Your task to perform on an android device: What's on my calendar tomorrow? Image 0: 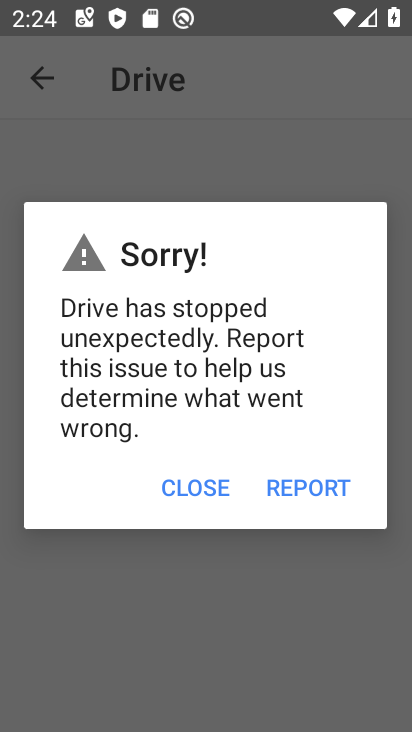
Step 0: drag from (176, 615) to (381, 555)
Your task to perform on an android device: What's on my calendar tomorrow? Image 1: 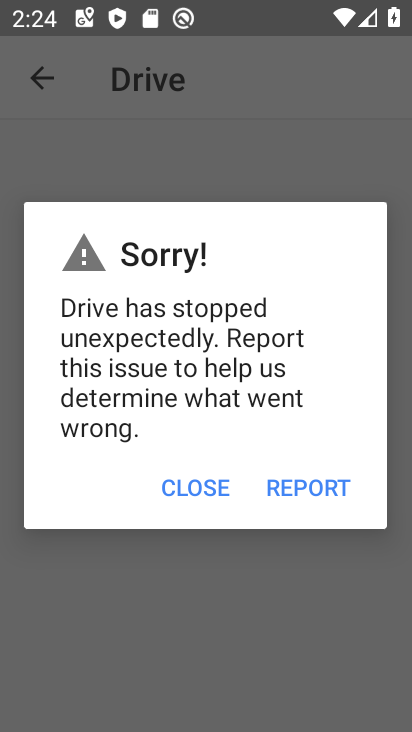
Step 1: click (192, 493)
Your task to perform on an android device: What's on my calendar tomorrow? Image 2: 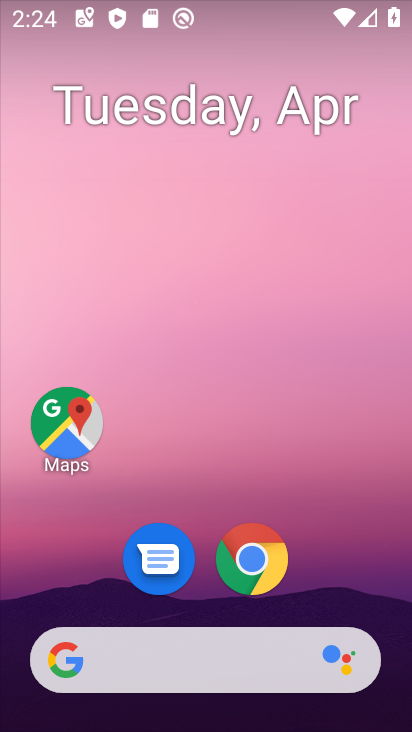
Step 2: drag from (175, 628) to (374, 109)
Your task to perform on an android device: What's on my calendar tomorrow? Image 3: 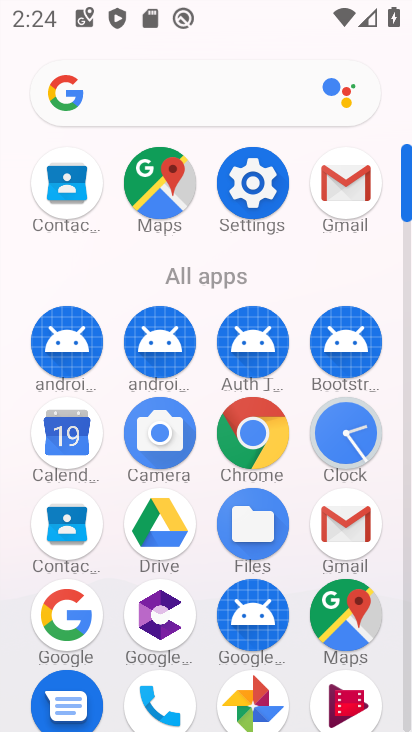
Step 3: click (64, 443)
Your task to perform on an android device: What's on my calendar tomorrow? Image 4: 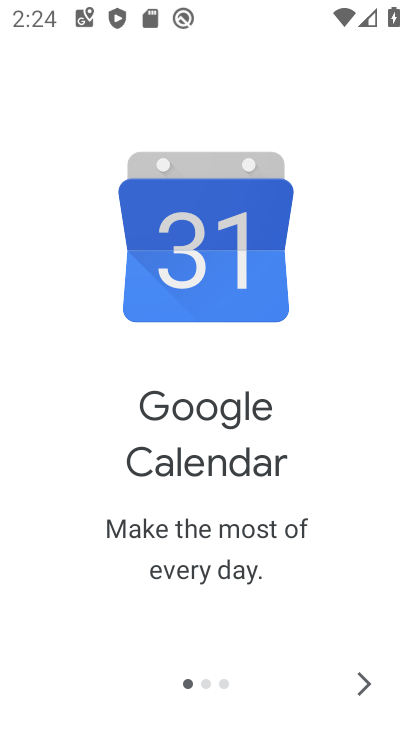
Step 4: click (350, 681)
Your task to perform on an android device: What's on my calendar tomorrow? Image 5: 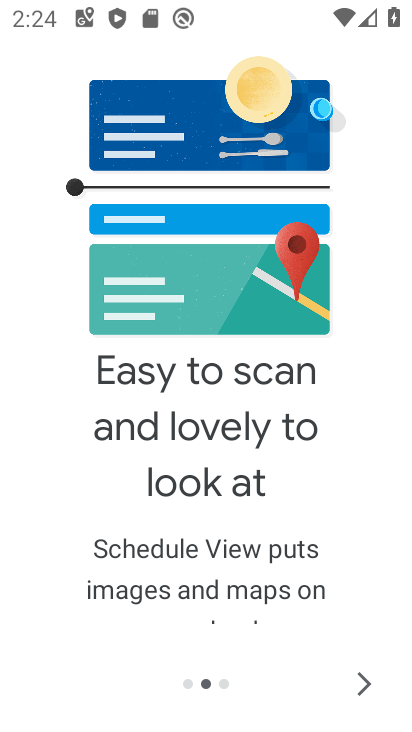
Step 5: click (363, 686)
Your task to perform on an android device: What's on my calendar tomorrow? Image 6: 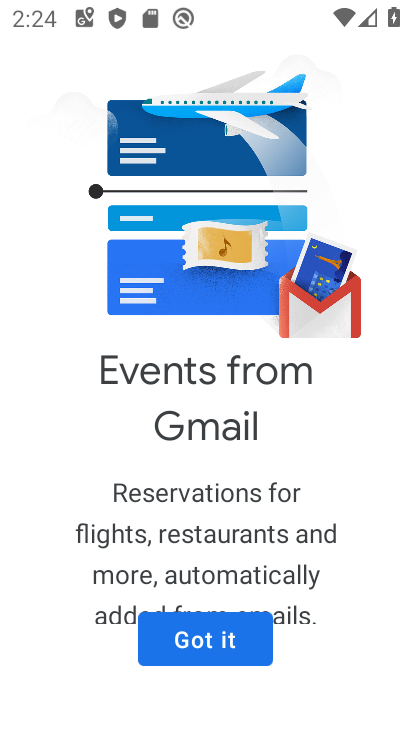
Step 6: click (222, 650)
Your task to perform on an android device: What's on my calendar tomorrow? Image 7: 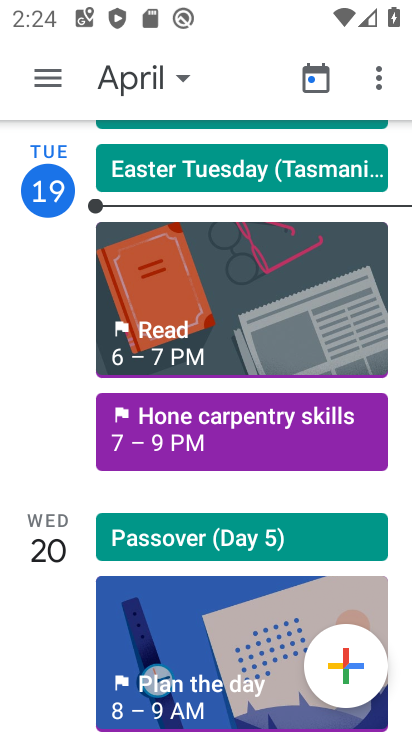
Step 7: task complete